Your task to perform on an android device: toggle notification dots Image 0: 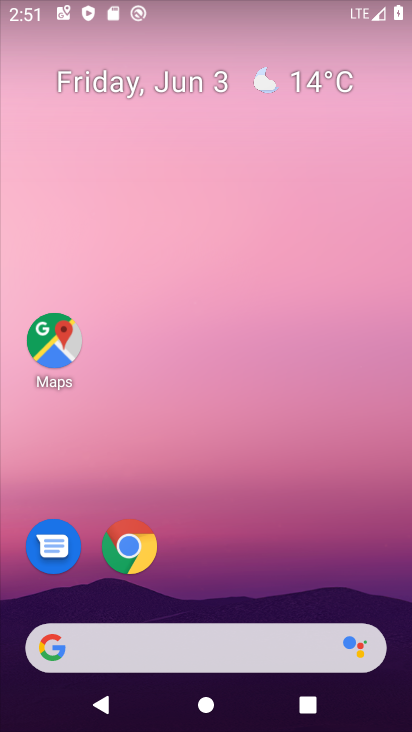
Step 0: drag from (240, 599) to (363, 106)
Your task to perform on an android device: toggle notification dots Image 1: 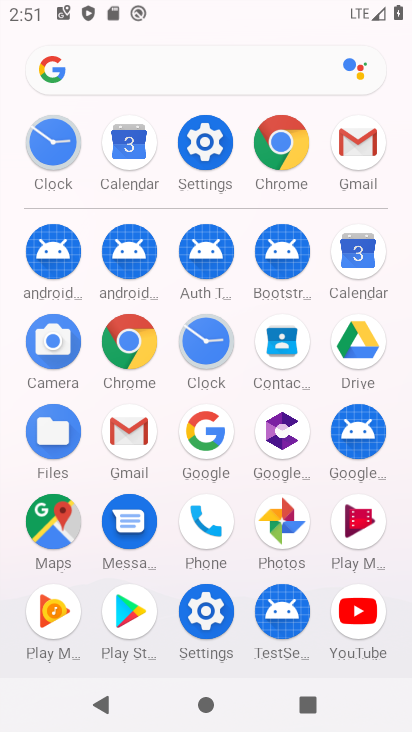
Step 1: click (186, 171)
Your task to perform on an android device: toggle notification dots Image 2: 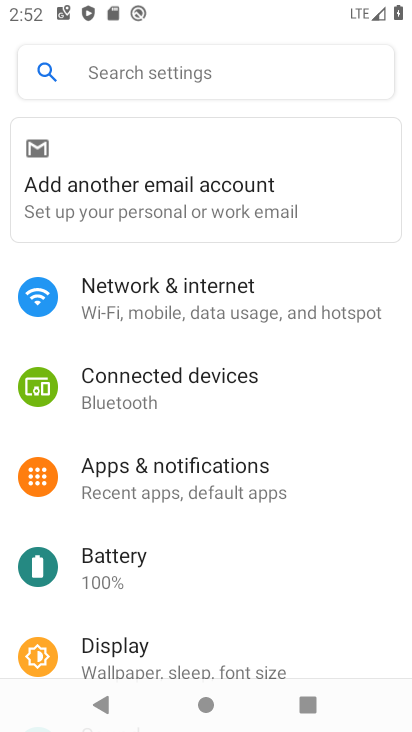
Step 2: click (176, 463)
Your task to perform on an android device: toggle notification dots Image 3: 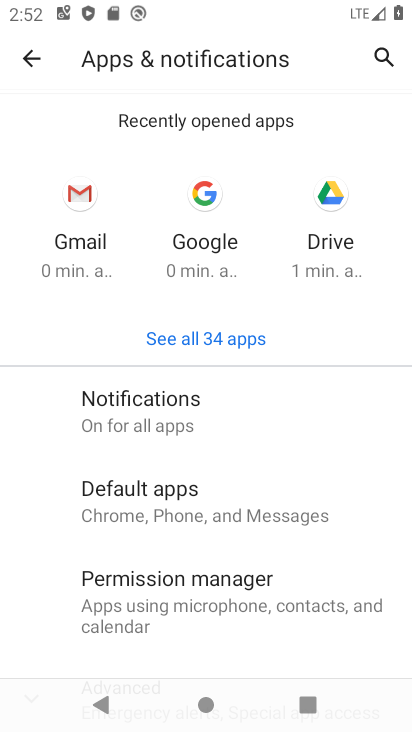
Step 3: click (166, 426)
Your task to perform on an android device: toggle notification dots Image 4: 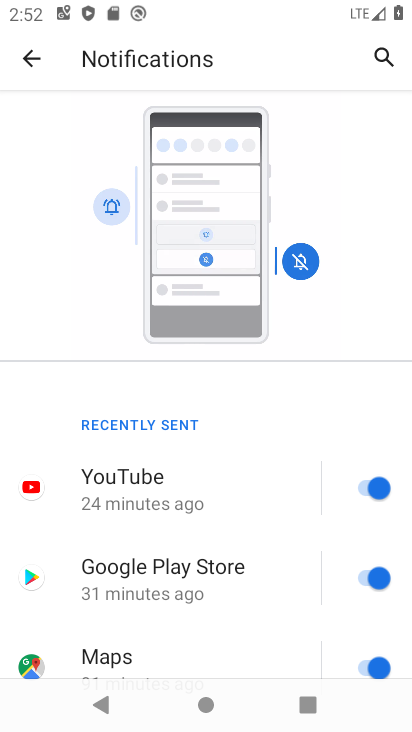
Step 4: drag from (202, 575) to (307, 260)
Your task to perform on an android device: toggle notification dots Image 5: 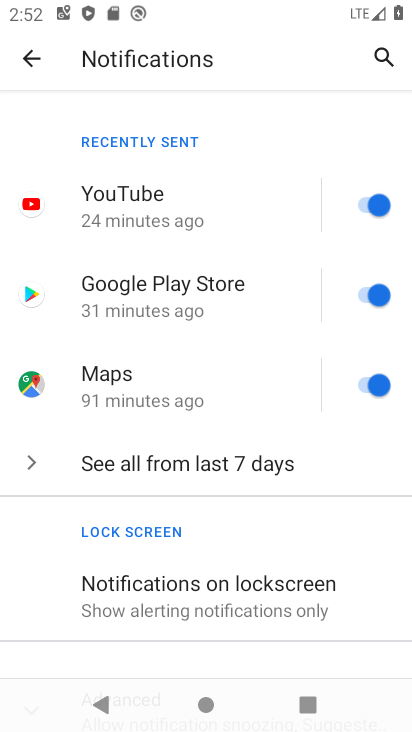
Step 5: drag from (125, 636) to (259, 325)
Your task to perform on an android device: toggle notification dots Image 6: 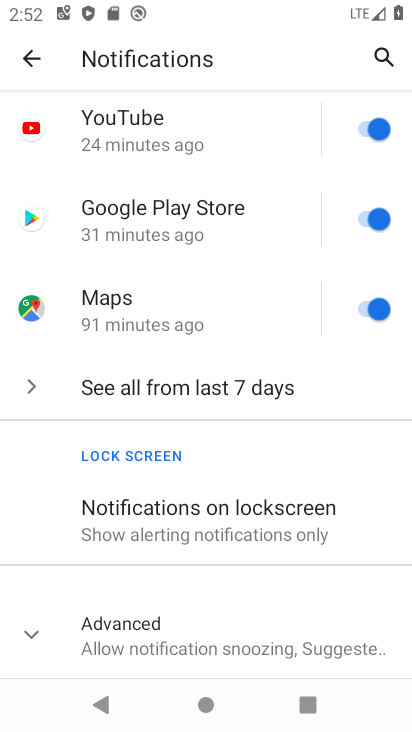
Step 6: click (142, 641)
Your task to perform on an android device: toggle notification dots Image 7: 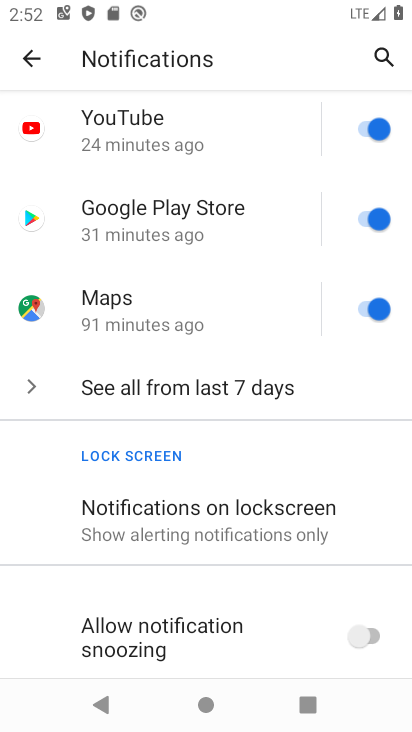
Step 7: drag from (254, 587) to (342, 180)
Your task to perform on an android device: toggle notification dots Image 8: 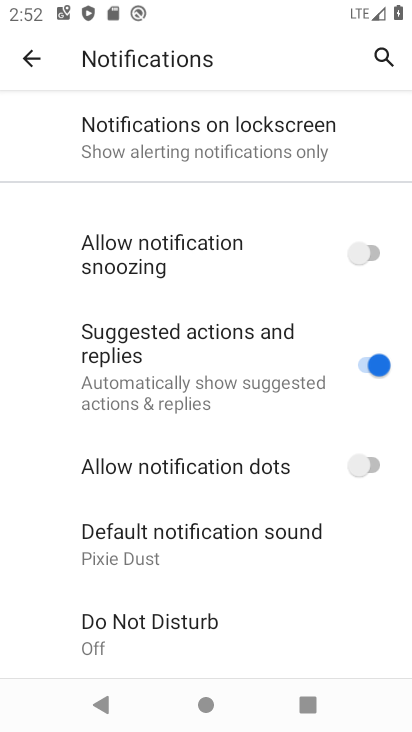
Step 8: click (363, 450)
Your task to perform on an android device: toggle notification dots Image 9: 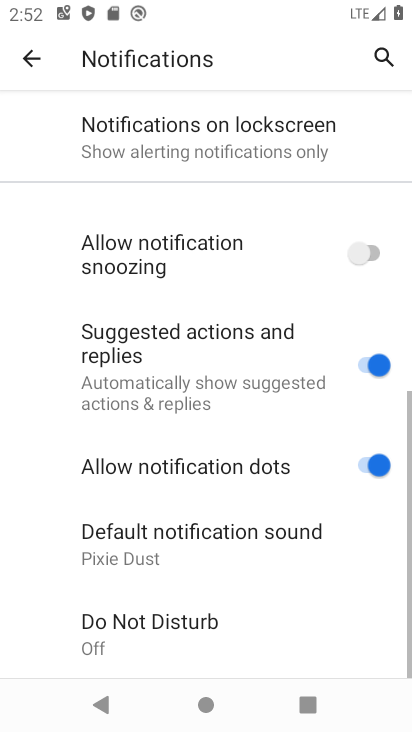
Step 9: task complete